Your task to perform on an android device: change text size in settings app Image 0: 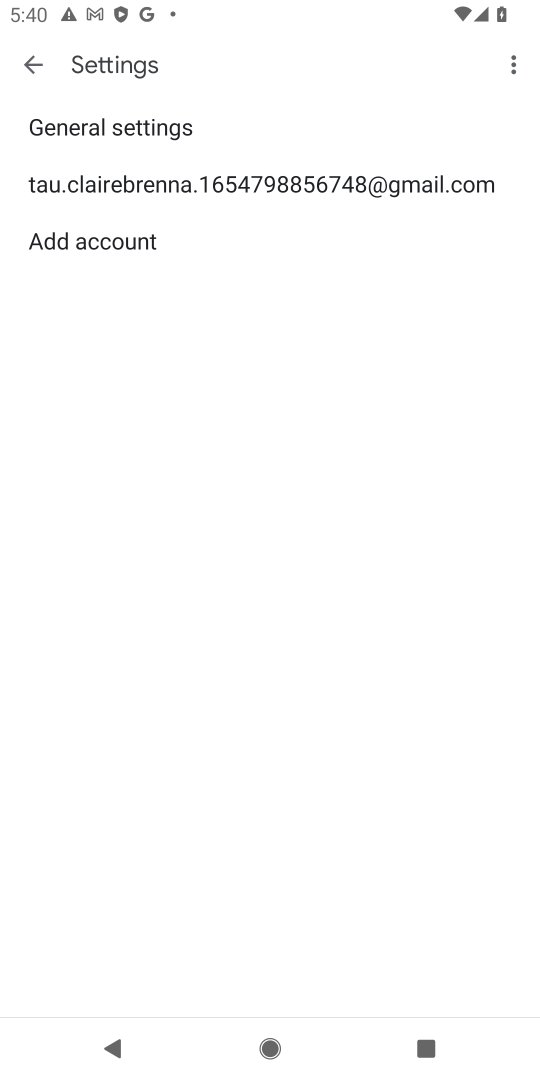
Step 0: press home button
Your task to perform on an android device: change text size in settings app Image 1: 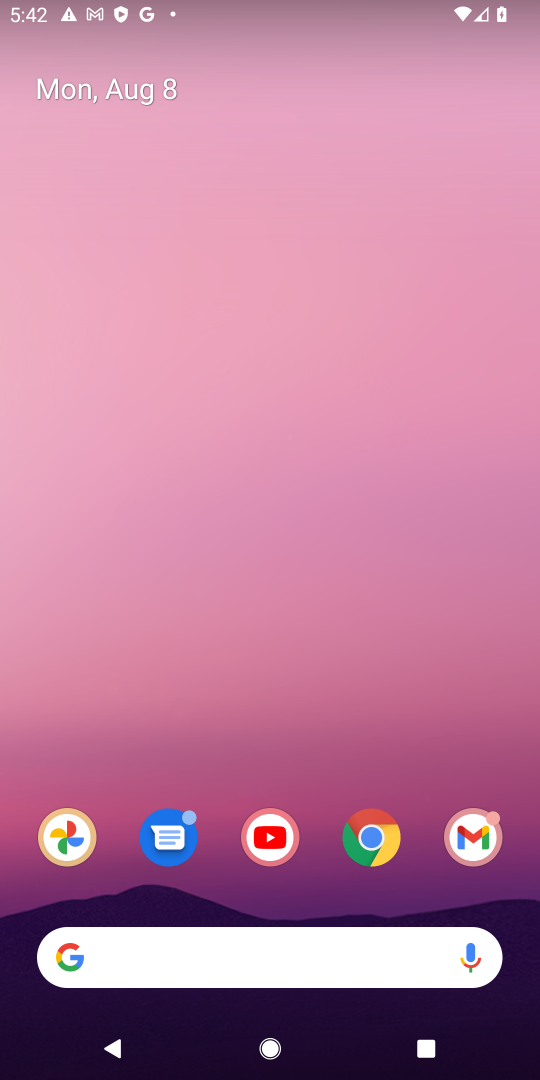
Step 1: drag from (368, 934) to (450, 33)
Your task to perform on an android device: change text size in settings app Image 2: 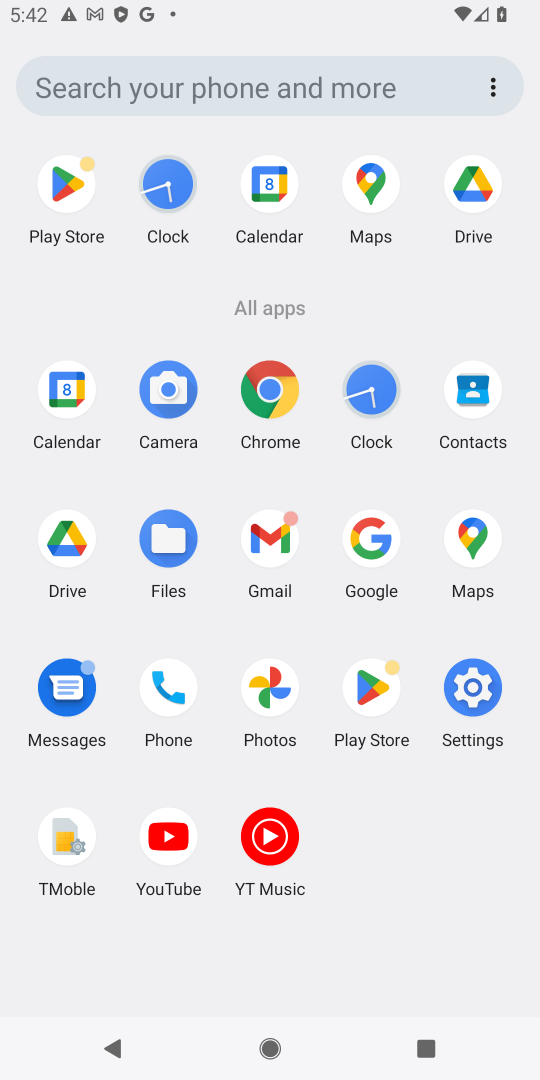
Step 2: click (471, 681)
Your task to perform on an android device: change text size in settings app Image 3: 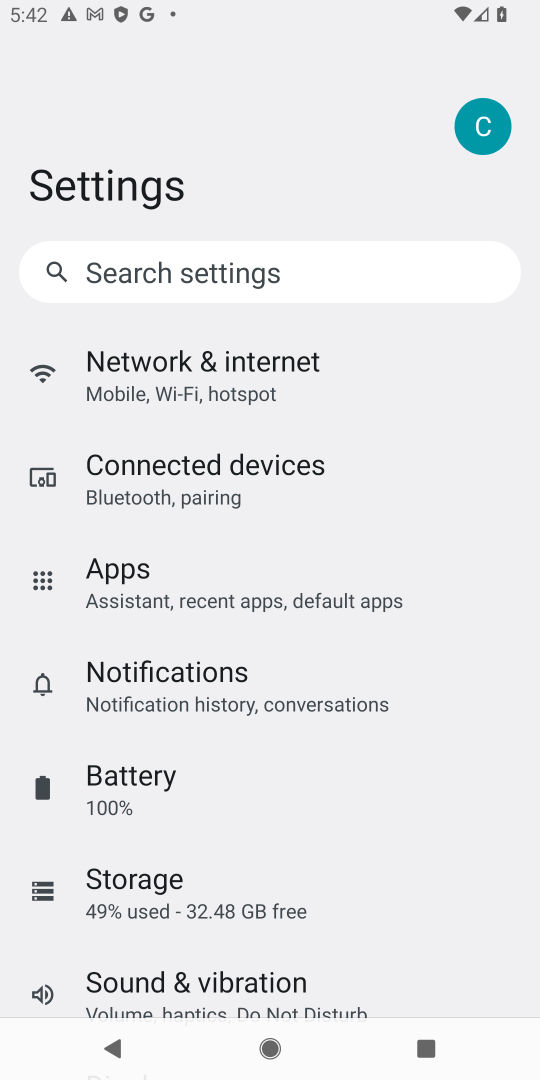
Step 3: drag from (259, 810) to (361, 217)
Your task to perform on an android device: change text size in settings app Image 4: 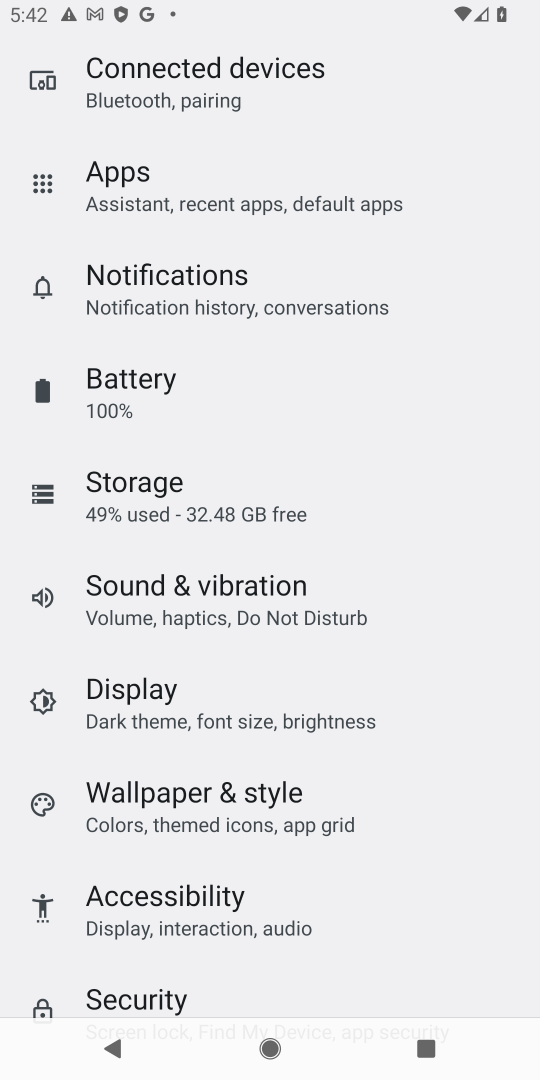
Step 4: click (259, 707)
Your task to perform on an android device: change text size in settings app Image 5: 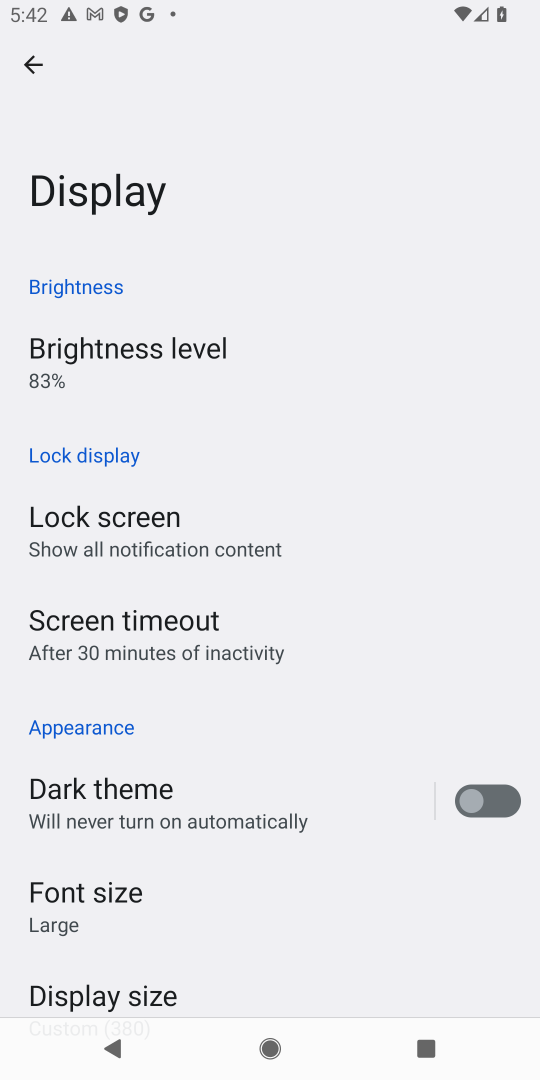
Step 5: drag from (198, 942) to (367, 278)
Your task to perform on an android device: change text size in settings app Image 6: 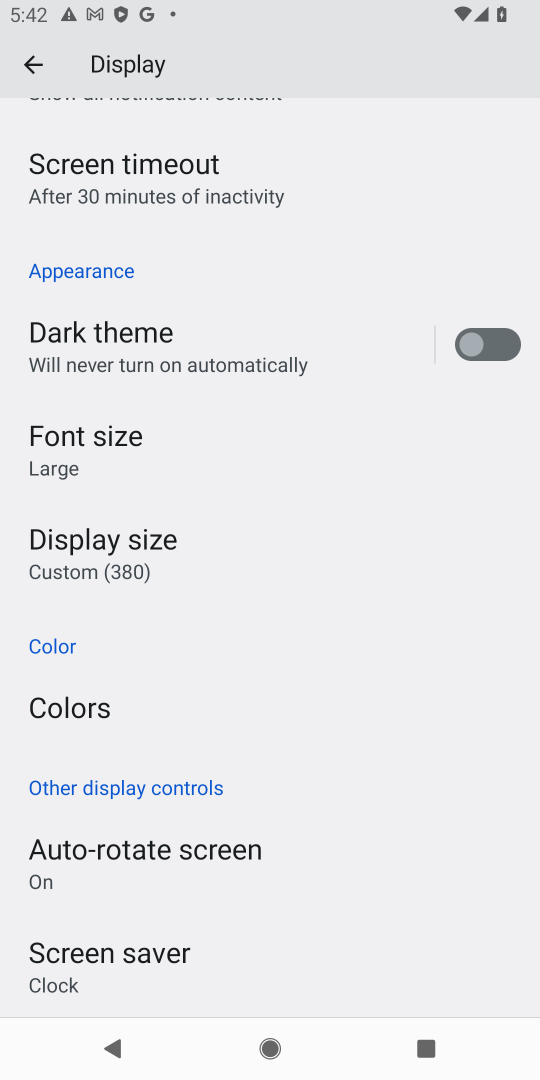
Step 6: click (100, 440)
Your task to perform on an android device: change text size in settings app Image 7: 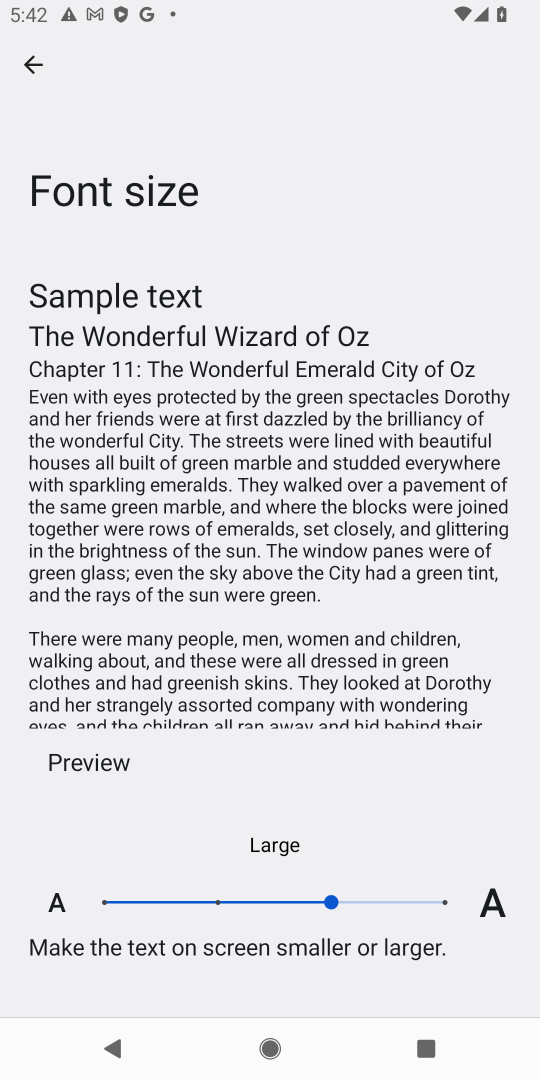
Step 7: click (266, 913)
Your task to perform on an android device: change text size in settings app Image 8: 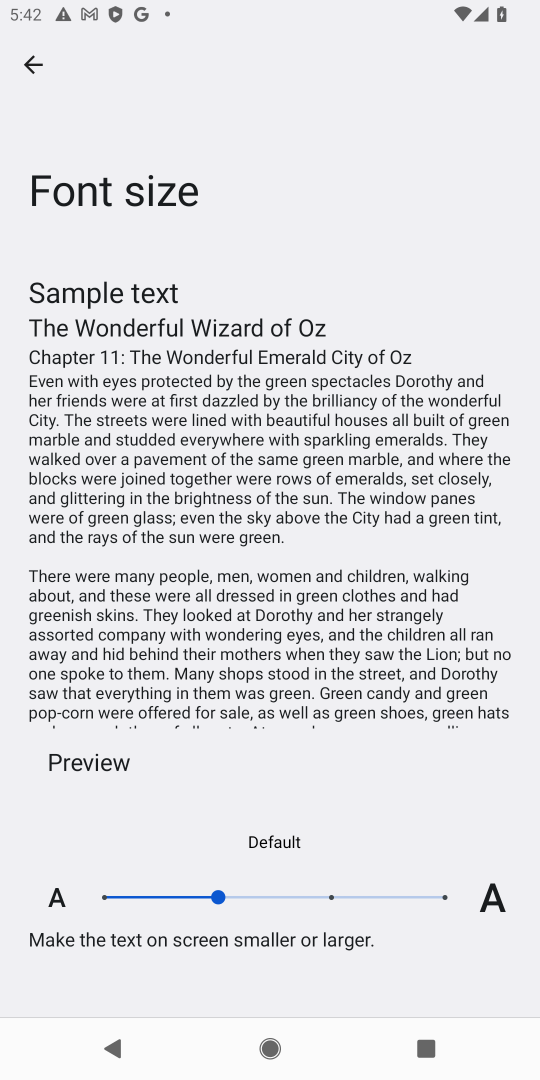
Step 8: task complete